Your task to perform on an android device: see creations saved in the google photos Image 0: 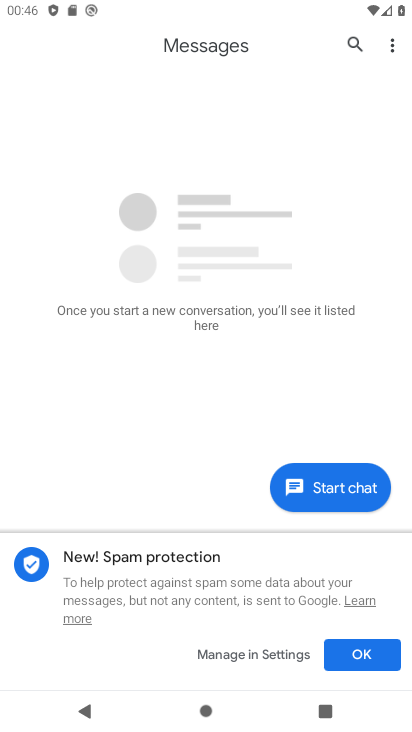
Step 0: press home button
Your task to perform on an android device: see creations saved in the google photos Image 1: 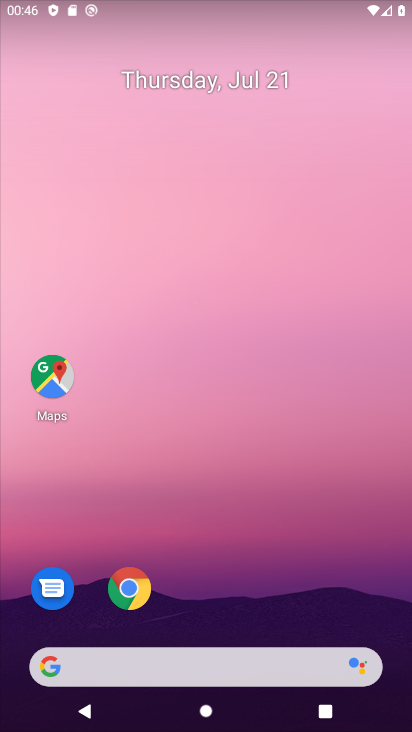
Step 1: drag from (294, 589) to (216, 41)
Your task to perform on an android device: see creations saved in the google photos Image 2: 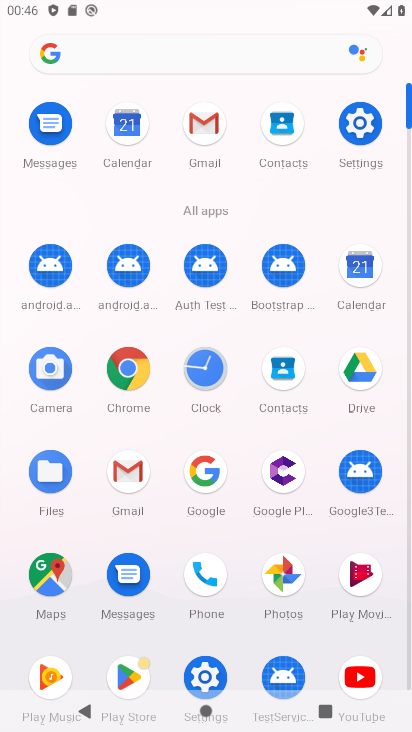
Step 2: click (284, 572)
Your task to perform on an android device: see creations saved in the google photos Image 3: 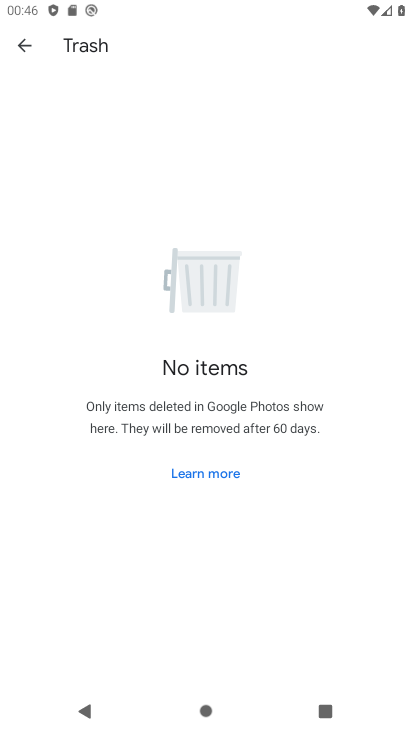
Step 3: click (31, 47)
Your task to perform on an android device: see creations saved in the google photos Image 4: 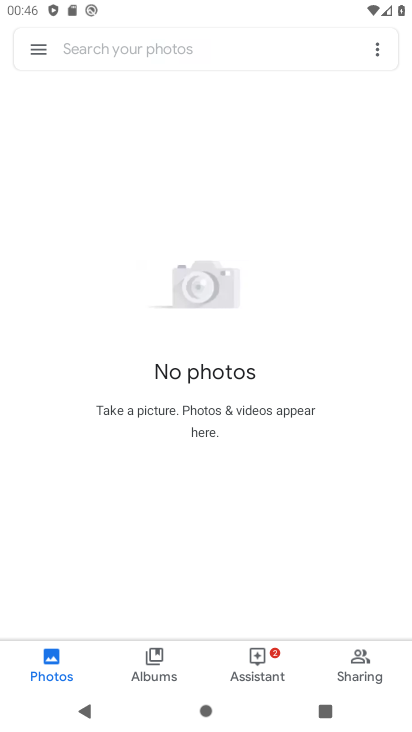
Step 4: click (177, 50)
Your task to perform on an android device: see creations saved in the google photos Image 5: 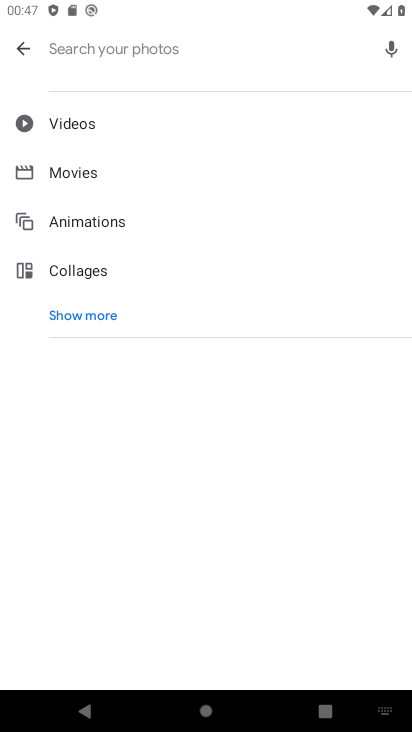
Step 5: click (93, 316)
Your task to perform on an android device: see creations saved in the google photos Image 6: 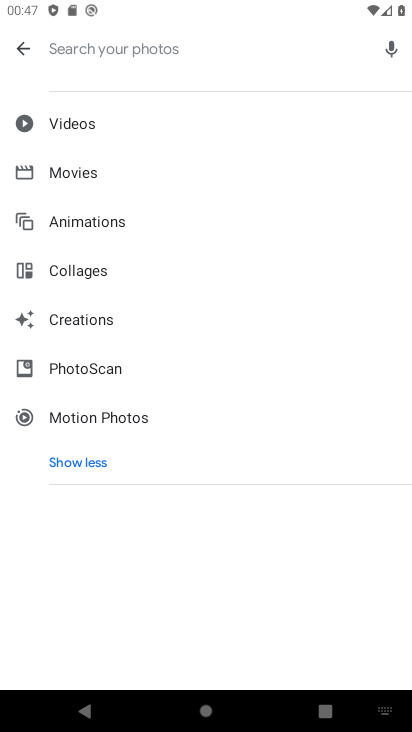
Step 6: click (94, 321)
Your task to perform on an android device: see creations saved in the google photos Image 7: 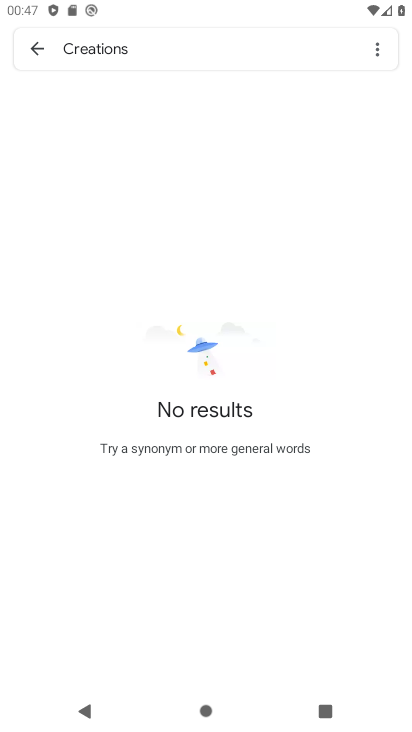
Step 7: task complete